Your task to perform on an android device: Open Yahoo.com Image 0: 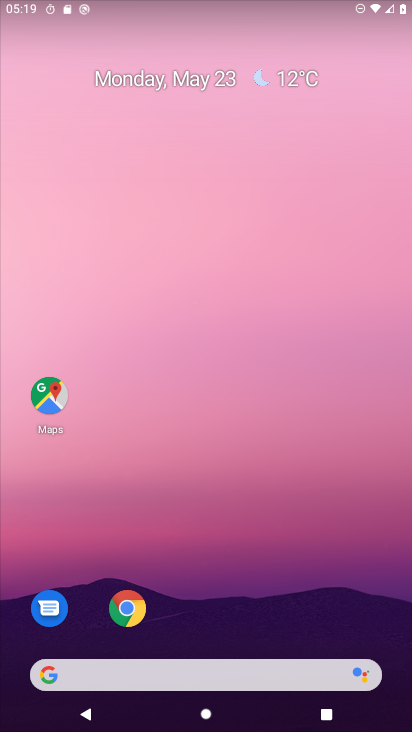
Step 0: click (136, 602)
Your task to perform on an android device: Open Yahoo.com Image 1: 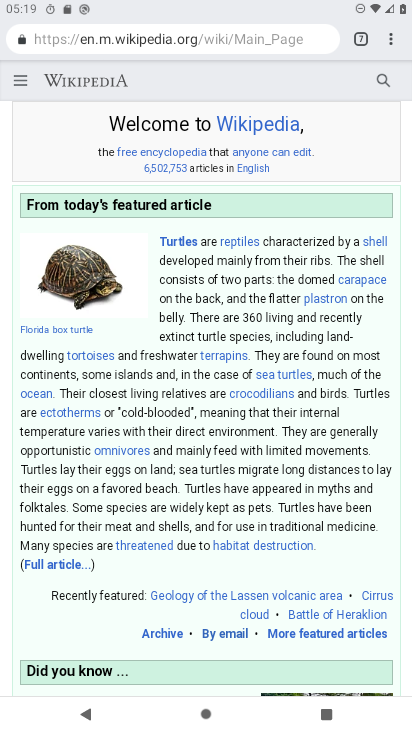
Step 1: click (358, 34)
Your task to perform on an android device: Open Yahoo.com Image 2: 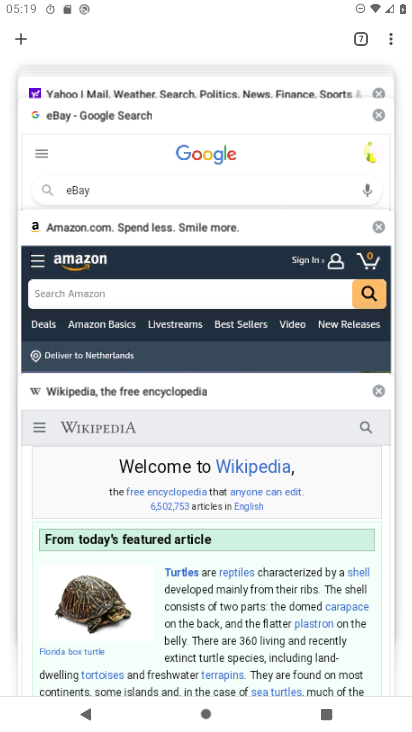
Step 2: click (60, 93)
Your task to perform on an android device: Open Yahoo.com Image 3: 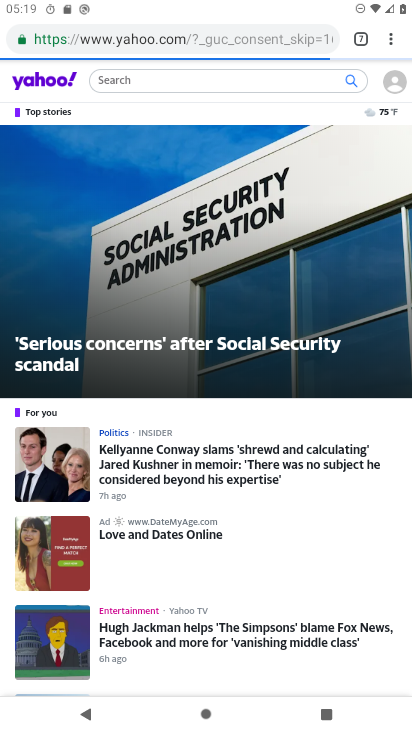
Step 3: task complete